Your task to perform on an android device: change notifications settings Image 0: 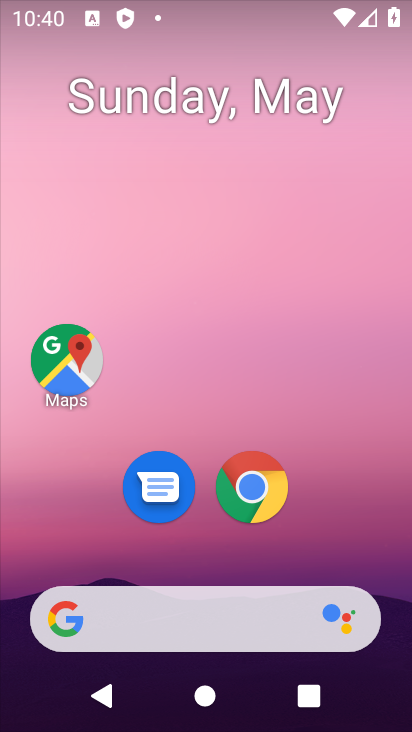
Step 0: drag from (155, 586) to (135, 13)
Your task to perform on an android device: change notifications settings Image 1: 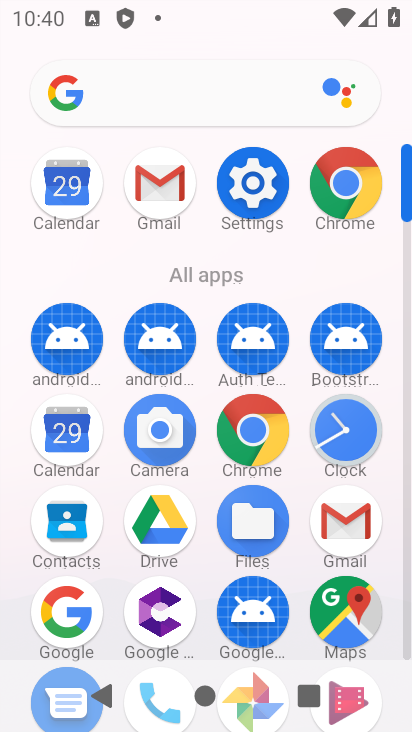
Step 1: click (246, 201)
Your task to perform on an android device: change notifications settings Image 2: 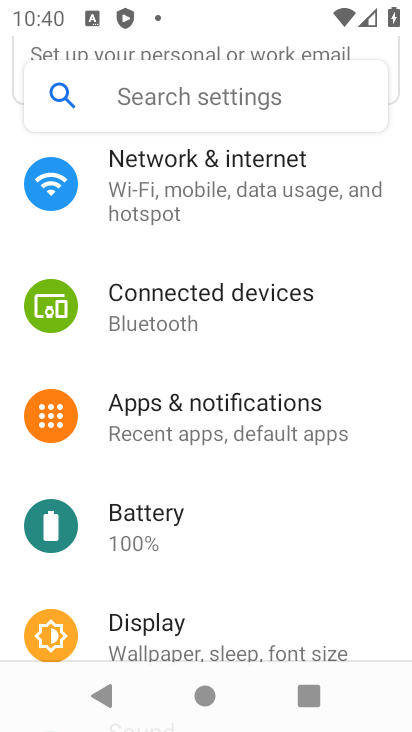
Step 2: click (282, 431)
Your task to perform on an android device: change notifications settings Image 3: 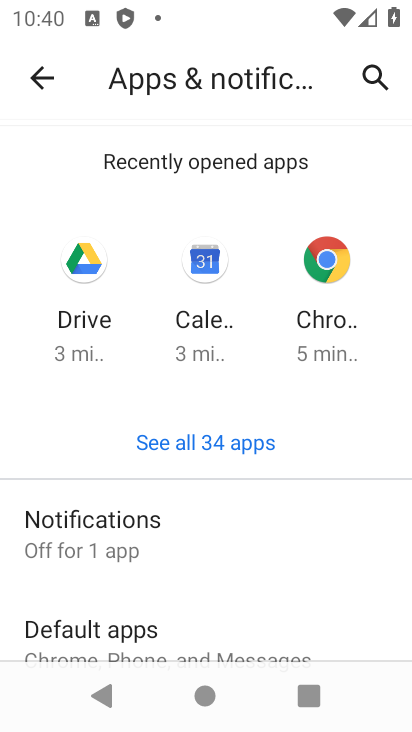
Step 3: click (184, 556)
Your task to perform on an android device: change notifications settings Image 4: 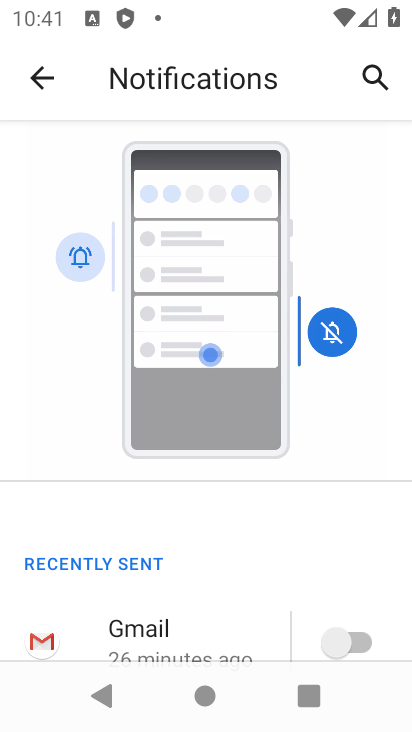
Step 4: task complete